Your task to perform on an android device: check google app version Image 0: 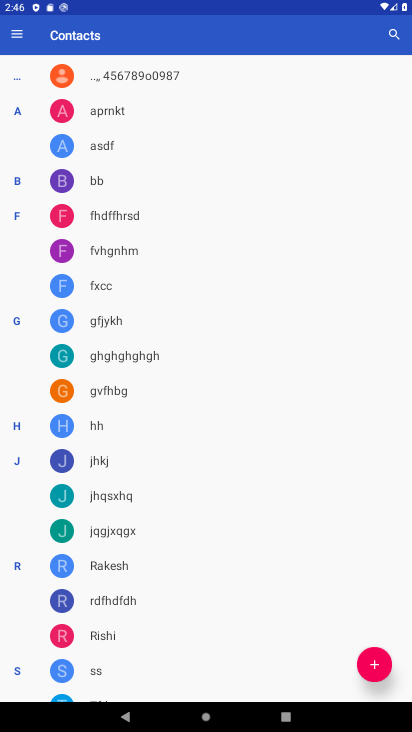
Step 0: press home button
Your task to perform on an android device: check google app version Image 1: 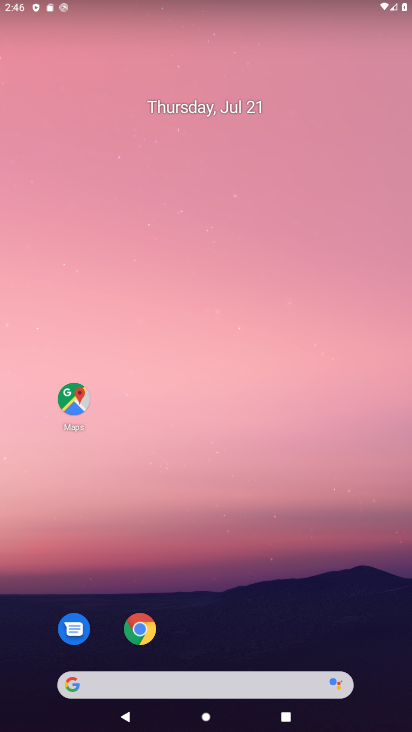
Step 1: drag from (364, 705) to (200, 33)
Your task to perform on an android device: check google app version Image 2: 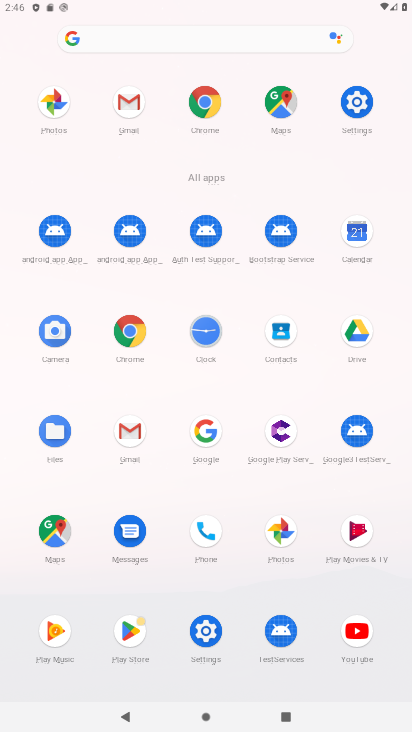
Step 2: click (348, 99)
Your task to perform on an android device: check google app version Image 3: 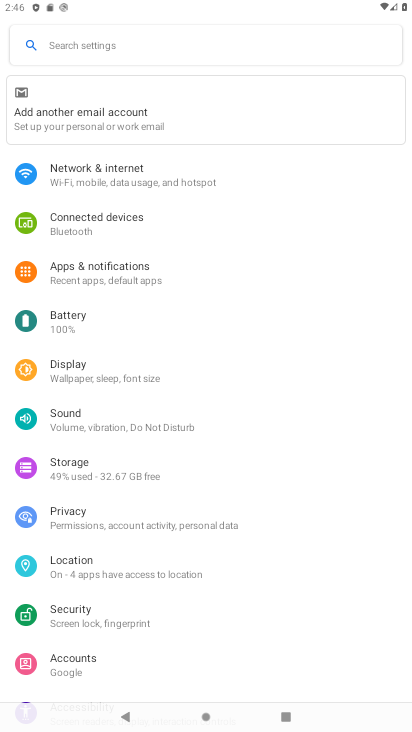
Step 3: drag from (350, 706) to (306, 271)
Your task to perform on an android device: check google app version Image 4: 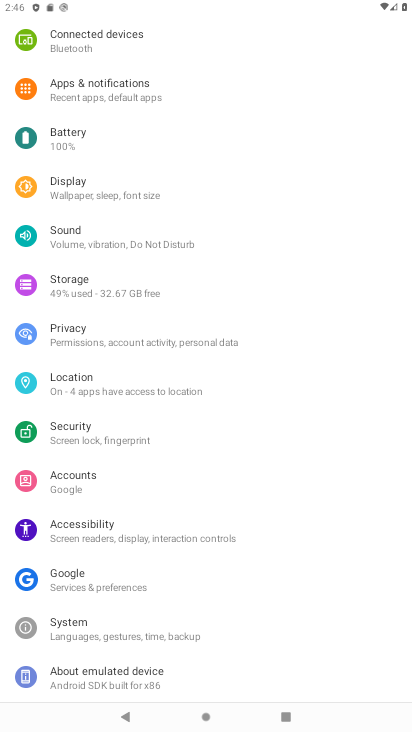
Step 4: click (77, 311)
Your task to perform on an android device: check google app version Image 5: 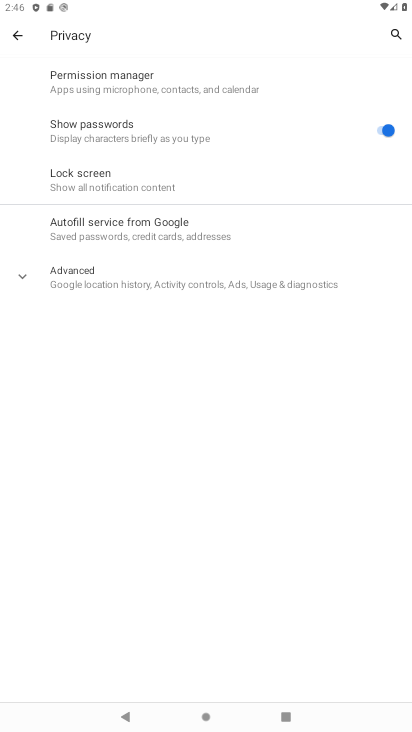
Step 5: click (11, 41)
Your task to perform on an android device: check google app version Image 6: 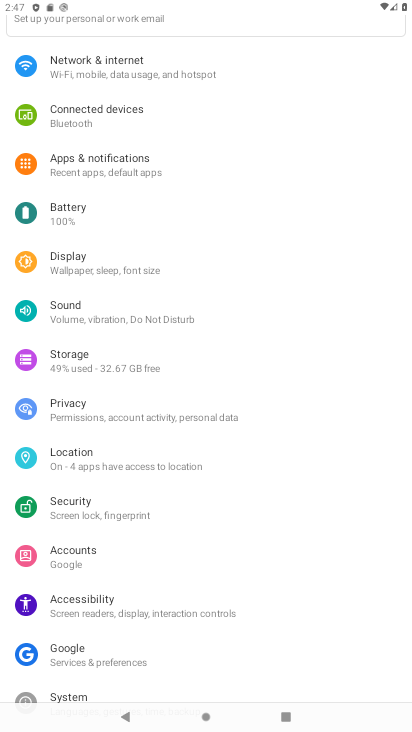
Step 6: drag from (373, 668) to (291, 210)
Your task to perform on an android device: check google app version Image 7: 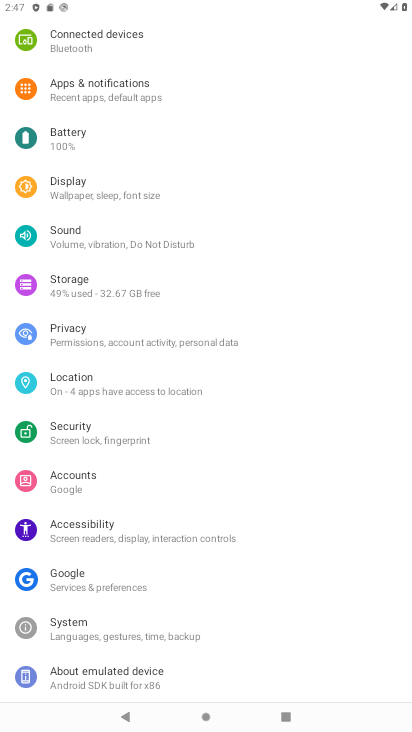
Step 7: click (123, 665)
Your task to perform on an android device: check google app version Image 8: 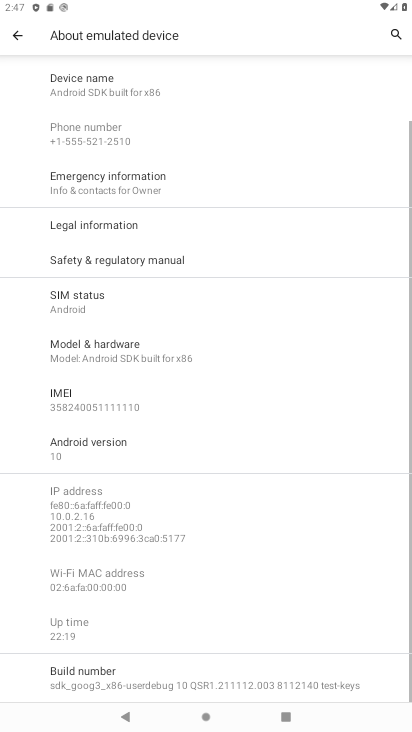
Step 8: click (102, 444)
Your task to perform on an android device: check google app version Image 9: 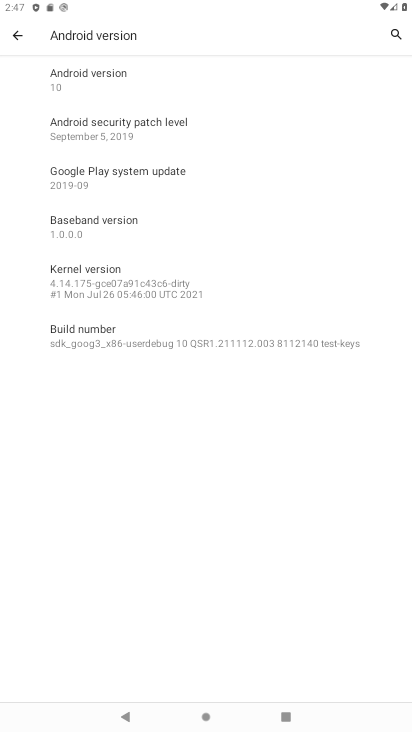
Step 9: click (69, 80)
Your task to perform on an android device: check google app version Image 10: 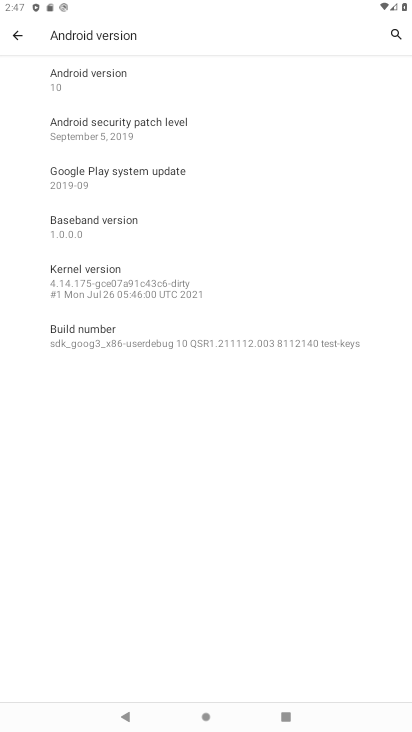
Step 10: task complete